Your task to perform on an android device: Open display settings Image 0: 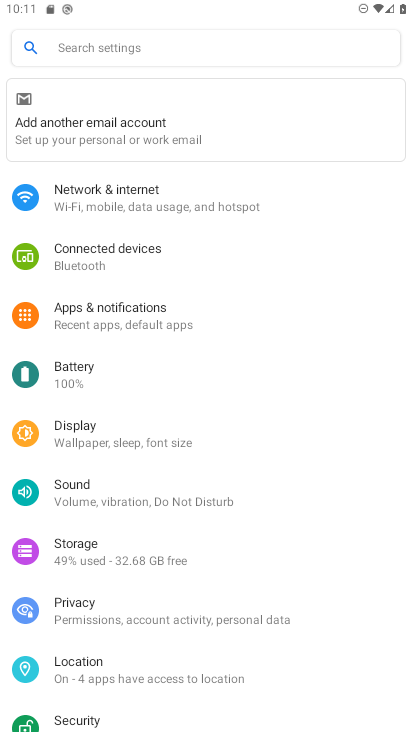
Step 0: click (89, 439)
Your task to perform on an android device: Open display settings Image 1: 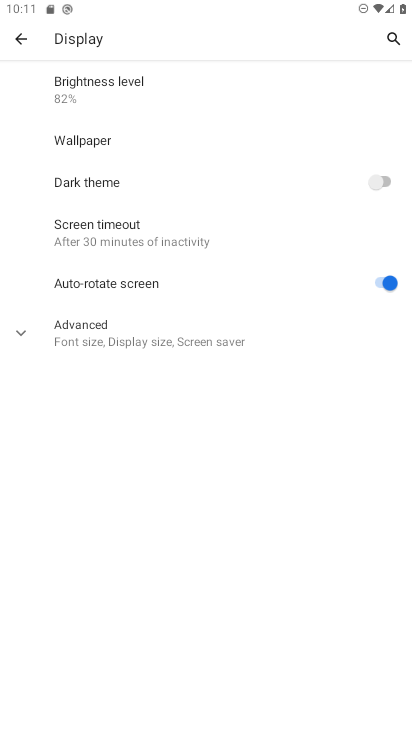
Step 1: click (143, 327)
Your task to perform on an android device: Open display settings Image 2: 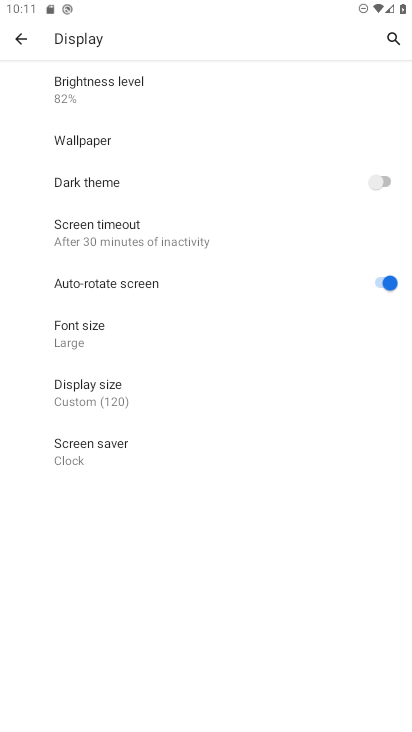
Step 2: task complete